Your task to perform on an android device: Play the last video I watched on Youtube Image 0: 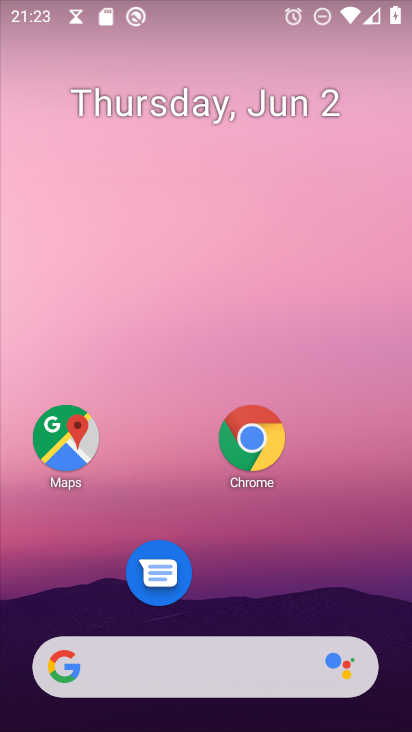
Step 0: press home button
Your task to perform on an android device: Play the last video I watched on Youtube Image 1: 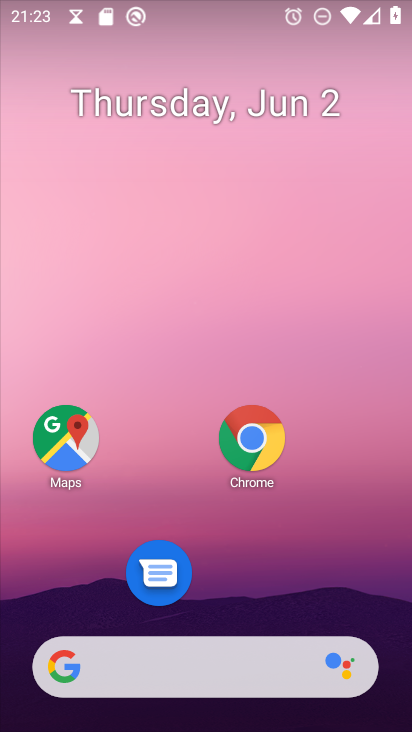
Step 1: drag from (159, 679) to (310, 133)
Your task to perform on an android device: Play the last video I watched on Youtube Image 2: 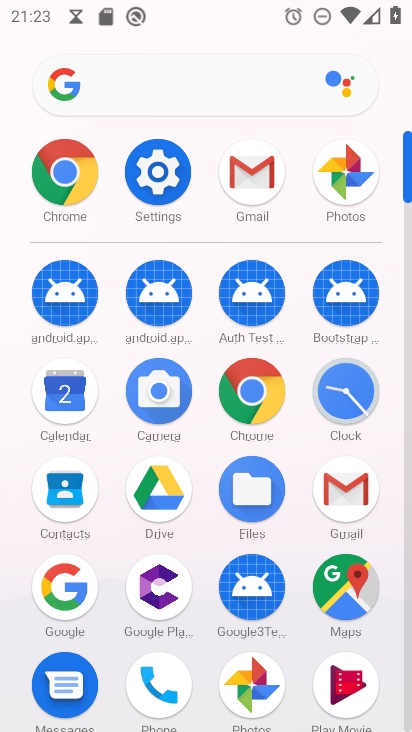
Step 2: drag from (194, 658) to (367, 171)
Your task to perform on an android device: Play the last video I watched on Youtube Image 3: 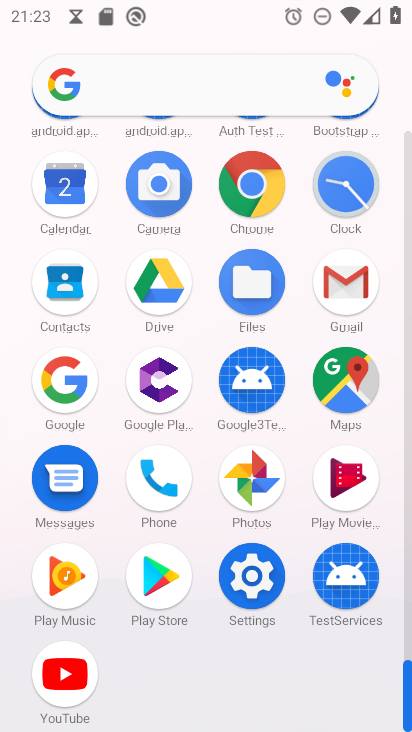
Step 3: click (57, 672)
Your task to perform on an android device: Play the last video I watched on Youtube Image 4: 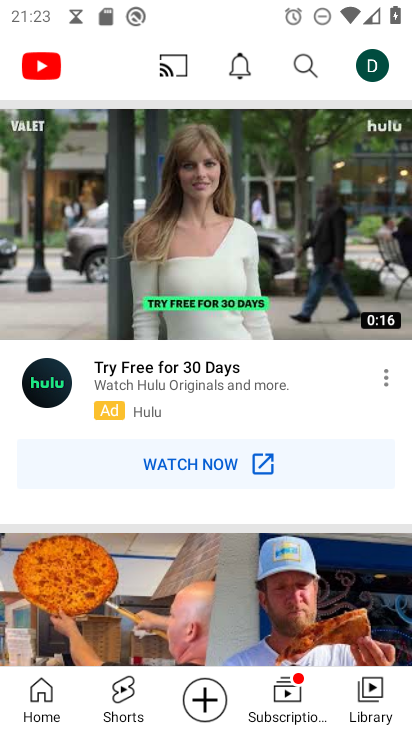
Step 4: drag from (234, 487) to (328, 82)
Your task to perform on an android device: Play the last video I watched on Youtube Image 5: 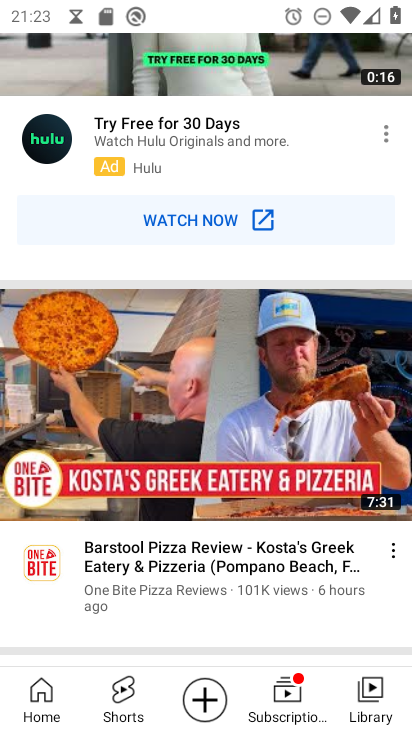
Step 5: click (374, 689)
Your task to perform on an android device: Play the last video I watched on Youtube Image 6: 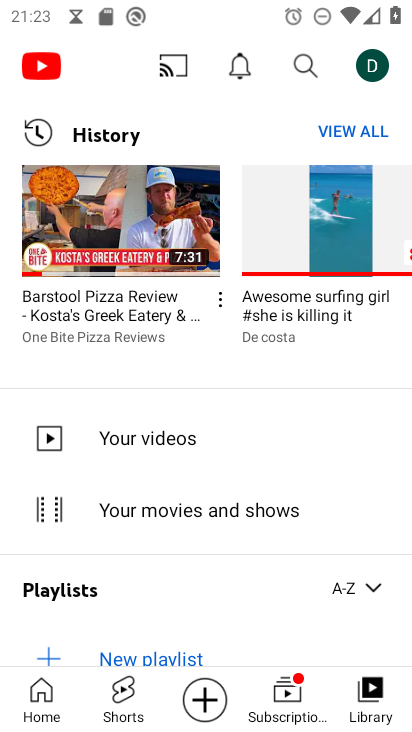
Step 6: click (113, 210)
Your task to perform on an android device: Play the last video I watched on Youtube Image 7: 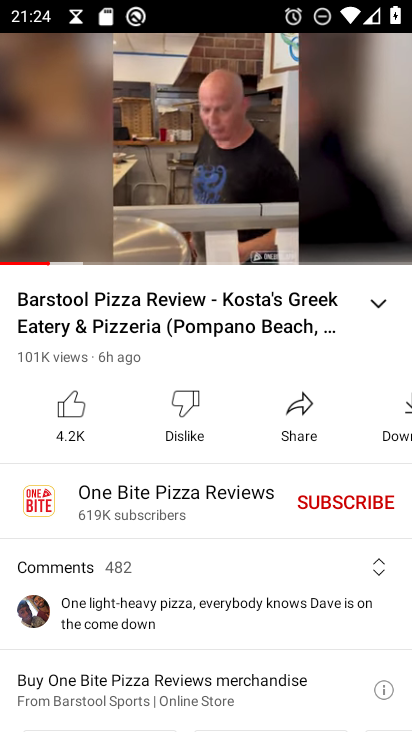
Step 7: click (202, 104)
Your task to perform on an android device: Play the last video I watched on Youtube Image 8: 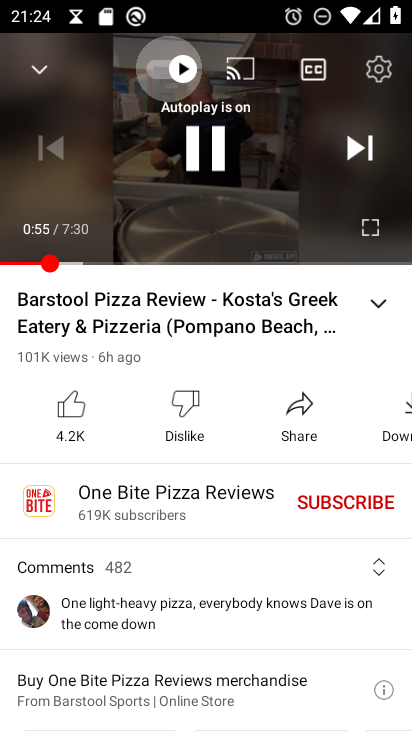
Step 8: click (203, 157)
Your task to perform on an android device: Play the last video I watched on Youtube Image 9: 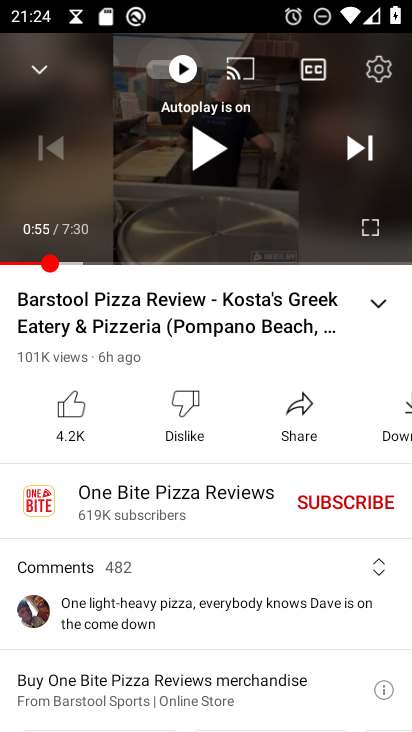
Step 9: task complete